Your task to perform on an android device: Go to battery settings Image 0: 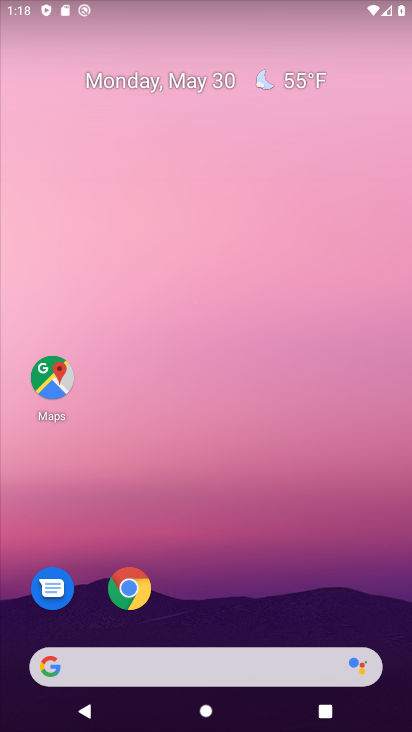
Step 0: drag from (391, 631) to (254, 234)
Your task to perform on an android device: Go to battery settings Image 1: 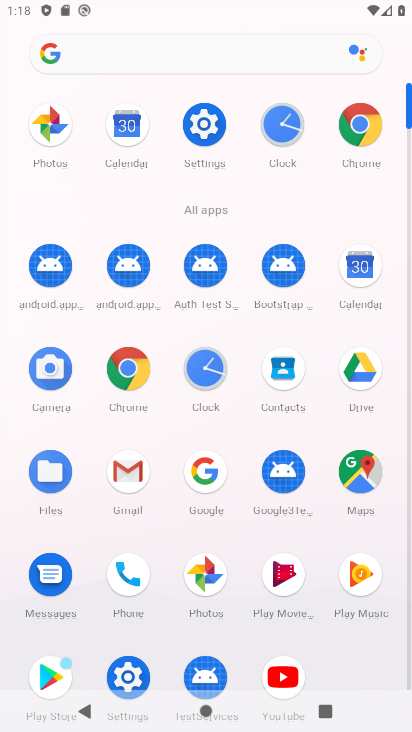
Step 1: click (409, 675)
Your task to perform on an android device: Go to battery settings Image 2: 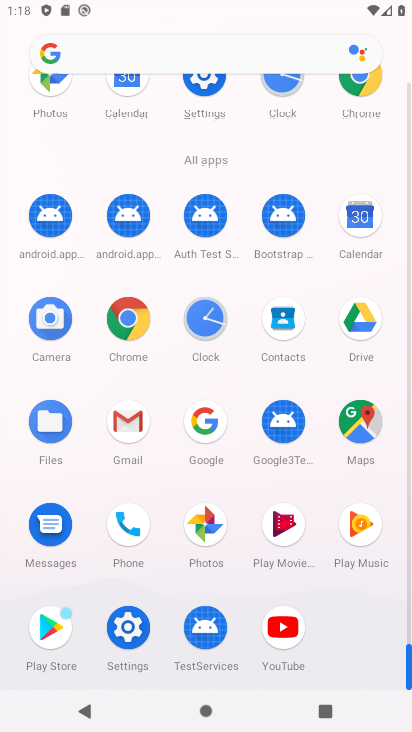
Step 2: click (127, 626)
Your task to perform on an android device: Go to battery settings Image 3: 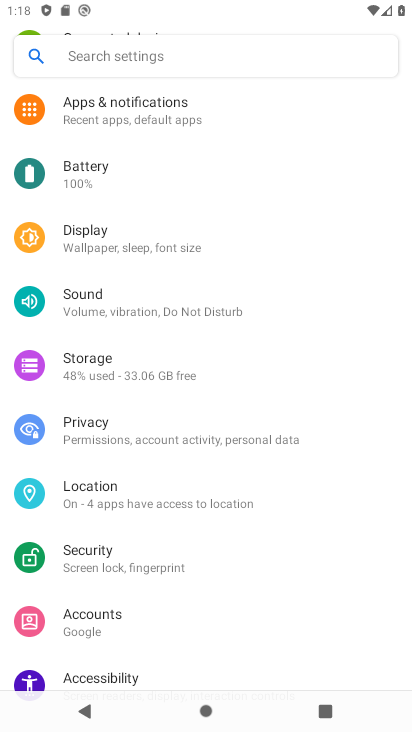
Step 3: drag from (279, 204) to (286, 316)
Your task to perform on an android device: Go to battery settings Image 4: 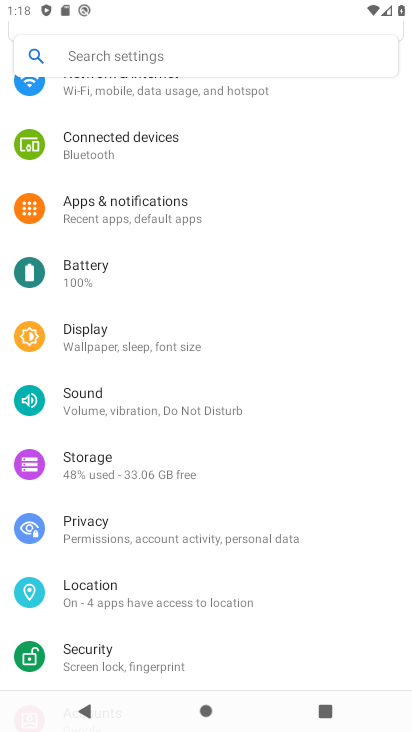
Step 4: click (74, 269)
Your task to perform on an android device: Go to battery settings Image 5: 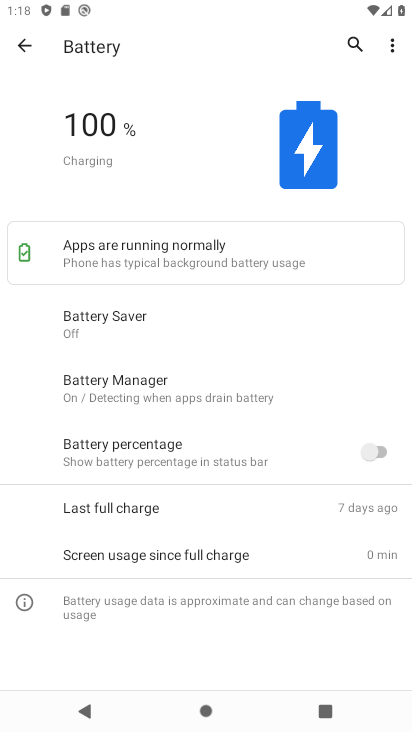
Step 5: task complete